Your task to perform on an android device: turn off notifications settings in the gmail app Image 0: 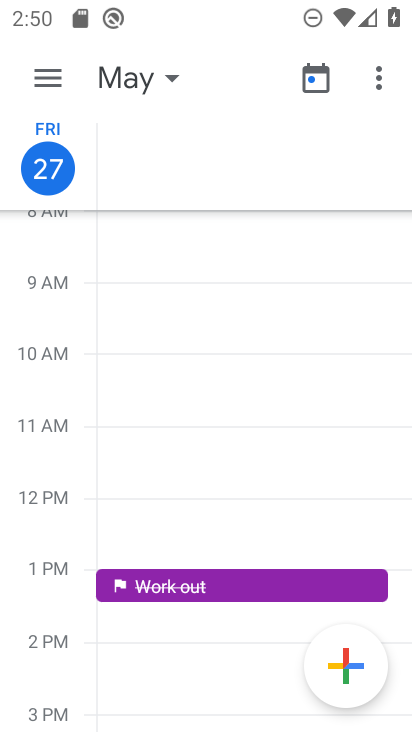
Step 0: press home button
Your task to perform on an android device: turn off notifications settings in the gmail app Image 1: 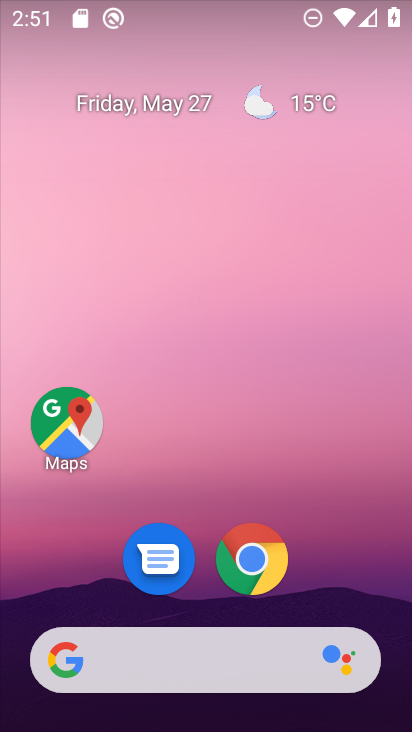
Step 1: drag from (342, 508) to (392, 2)
Your task to perform on an android device: turn off notifications settings in the gmail app Image 2: 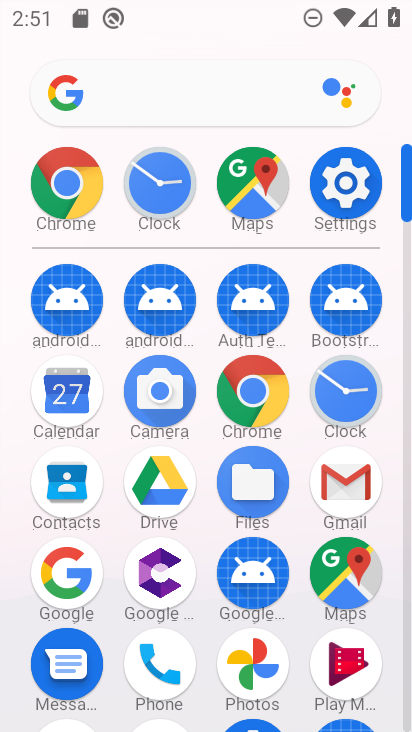
Step 2: drag from (272, 562) to (265, 67)
Your task to perform on an android device: turn off notifications settings in the gmail app Image 3: 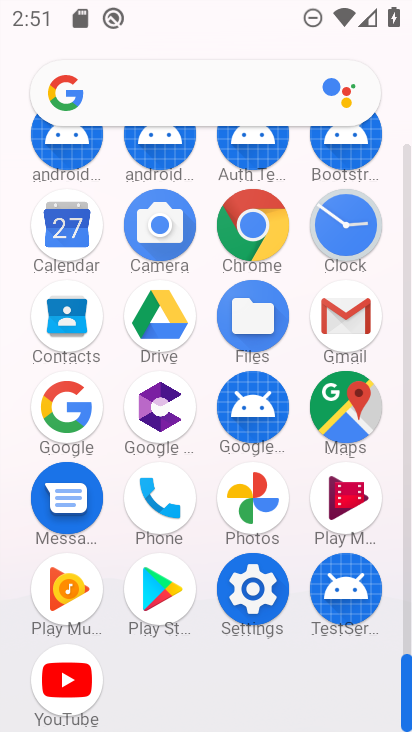
Step 3: click (356, 328)
Your task to perform on an android device: turn off notifications settings in the gmail app Image 4: 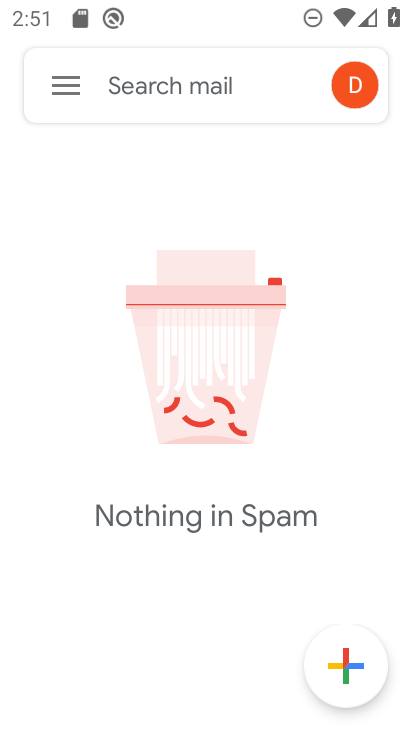
Step 4: click (77, 83)
Your task to perform on an android device: turn off notifications settings in the gmail app Image 5: 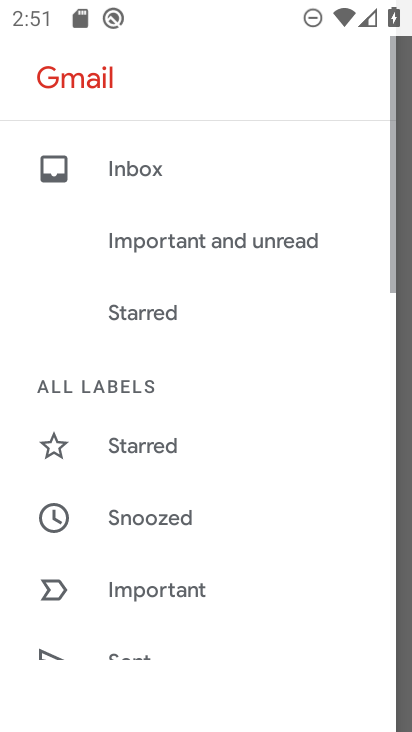
Step 5: drag from (258, 590) to (341, 8)
Your task to perform on an android device: turn off notifications settings in the gmail app Image 6: 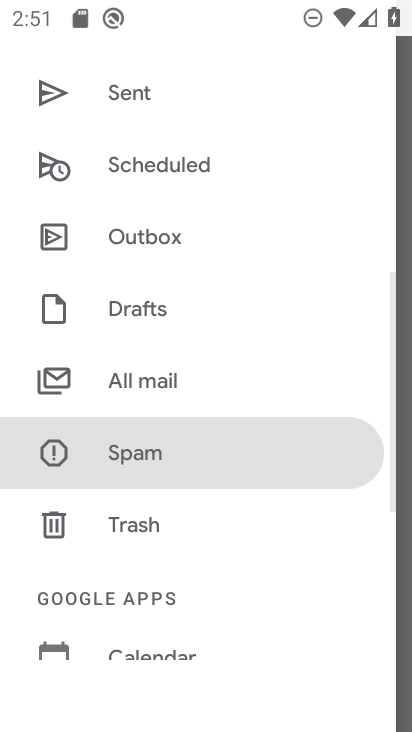
Step 6: drag from (234, 608) to (300, 28)
Your task to perform on an android device: turn off notifications settings in the gmail app Image 7: 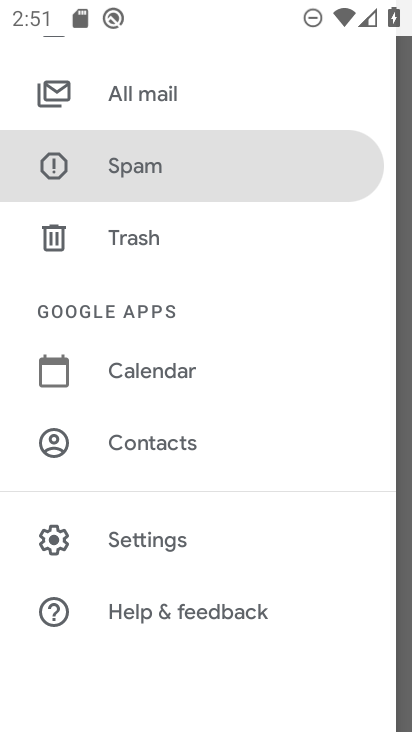
Step 7: click (199, 537)
Your task to perform on an android device: turn off notifications settings in the gmail app Image 8: 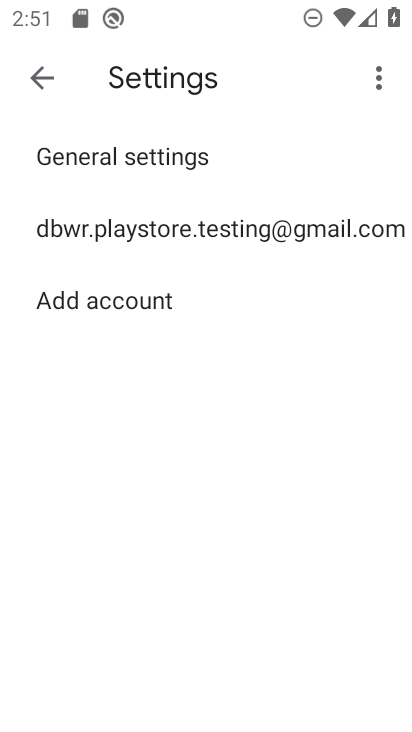
Step 8: click (296, 235)
Your task to perform on an android device: turn off notifications settings in the gmail app Image 9: 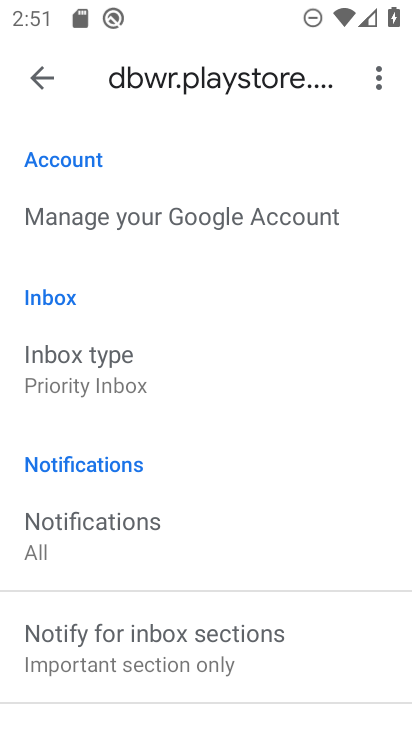
Step 9: drag from (167, 626) to (174, 195)
Your task to perform on an android device: turn off notifications settings in the gmail app Image 10: 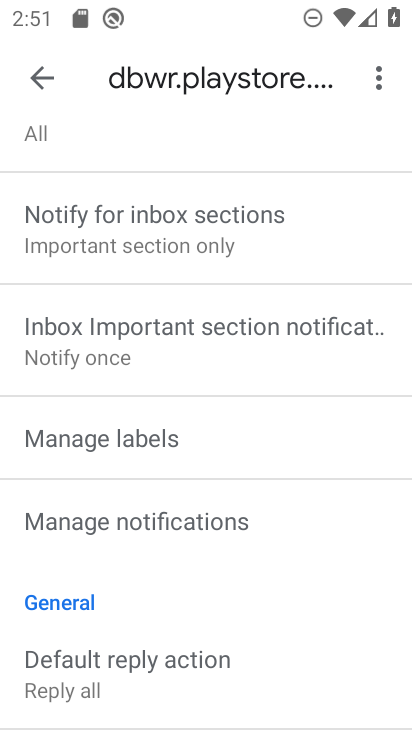
Step 10: click (263, 518)
Your task to perform on an android device: turn off notifications settings in the gmail app Image 11: 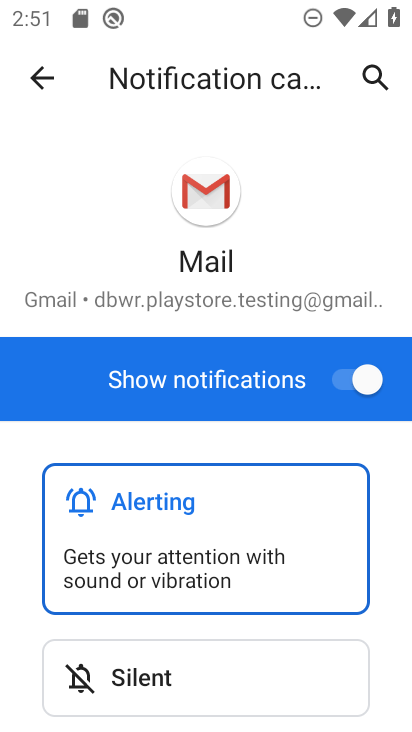
Step 11: click (348, 387)
Your task to perform on an android device: turn off notifications settings in the gmail app Image 12: 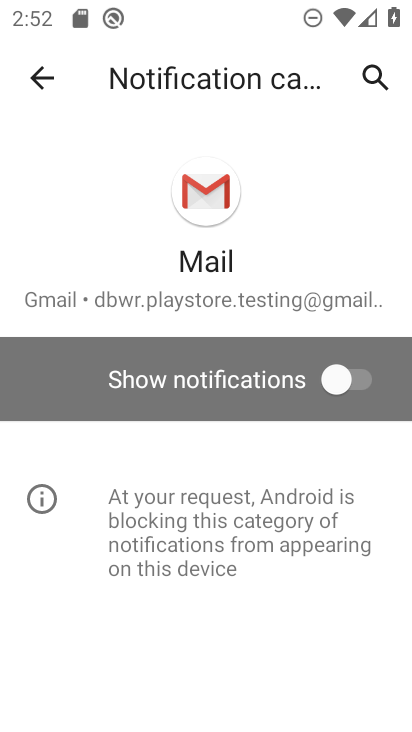
Step 12: task complete